Your task to perform on an android device: turn off wifi Image 0: 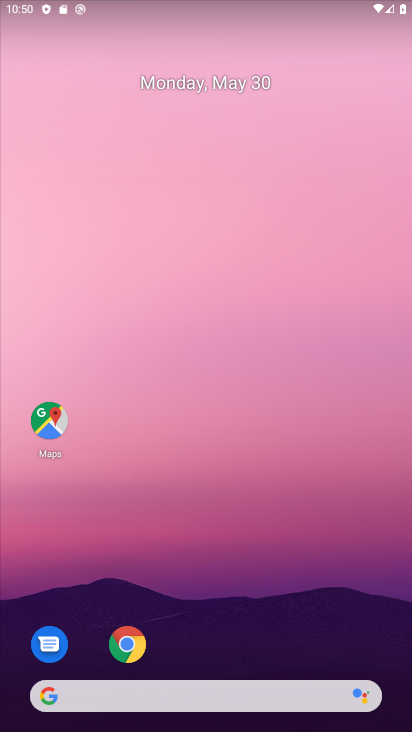
Step 0: drag from (377, 3) to (358, 714)
Your task to perform on an android device: turn off wifi Image 1: 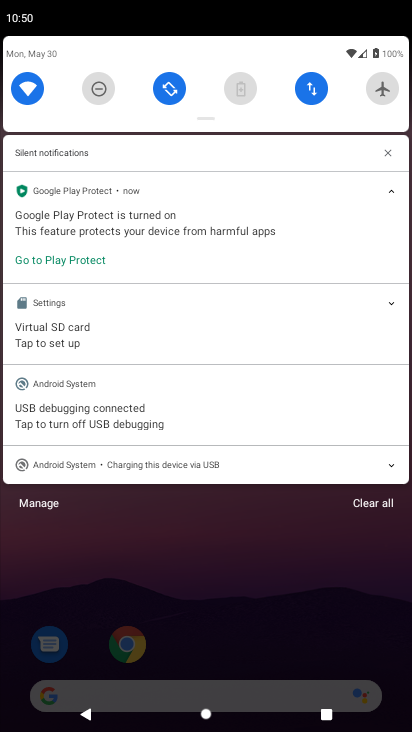
Step 1: drag from (196, 115) to (303, 596)
Your task to perform on an android device: turn off wifi Image 2: 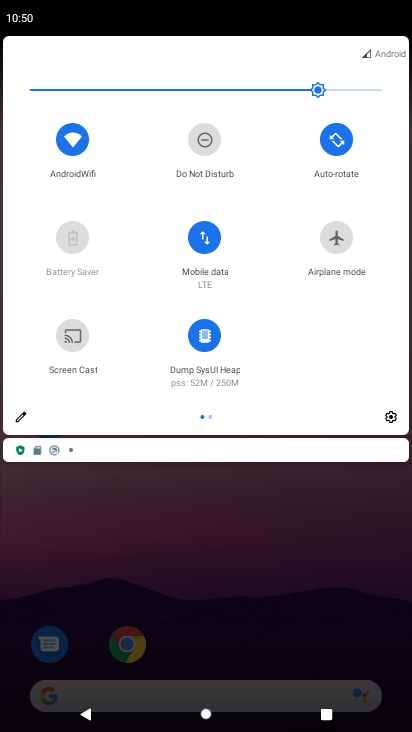
Step 2: click (65, 156)
Your task to perform on an android device: turn off wifi Image 3: 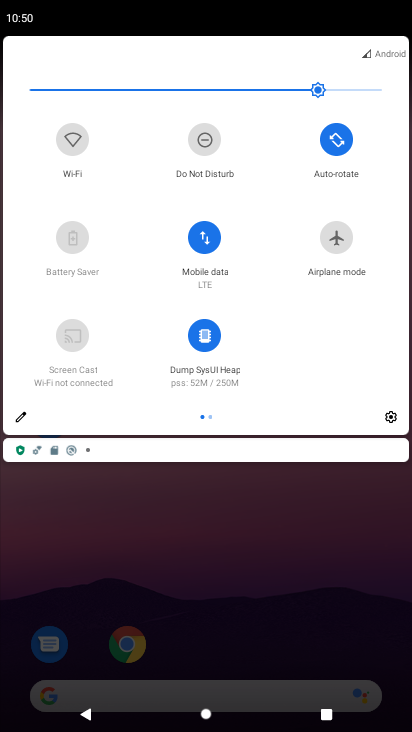
Step 3: task complete